Your task to perform on an android device: turn off location history Image 0: 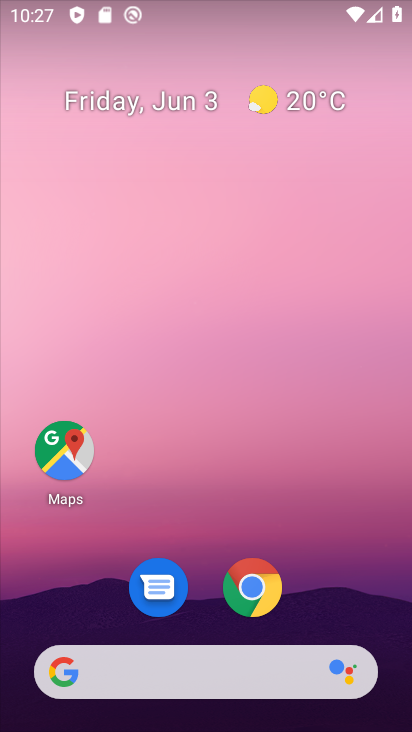
Step 0: drag from (344, 539) to (214, 47)
Your task to perform on an android device: turn off location history Image 1: 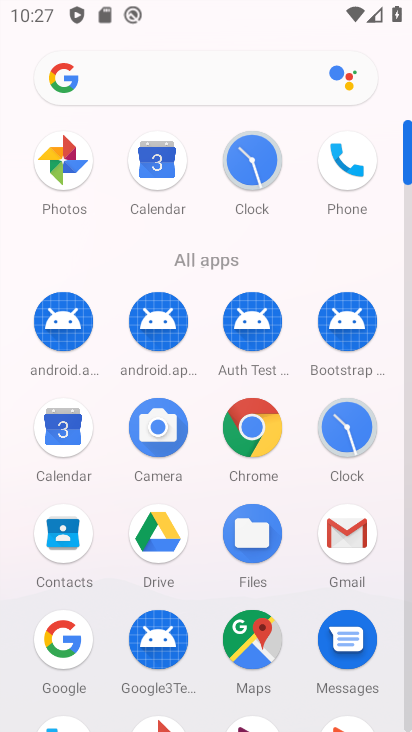
Step 1: drag from (221, 575) to (212, 102)
Your task to perform on an android device: turn off location history Image 2: 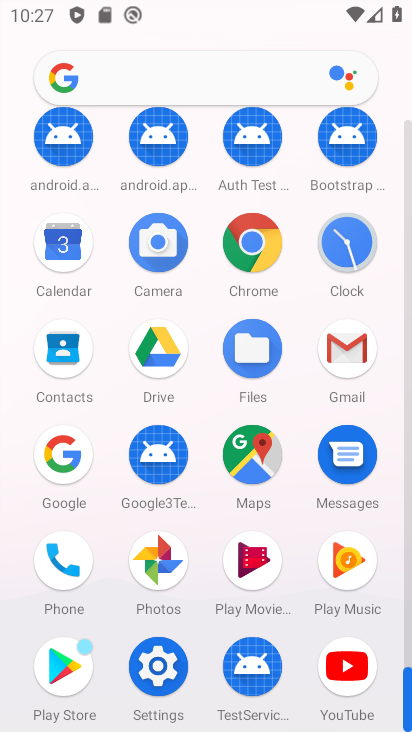
Step 2: click (166, 669)
Your task to perform on an android device: turn off location history Image 3: 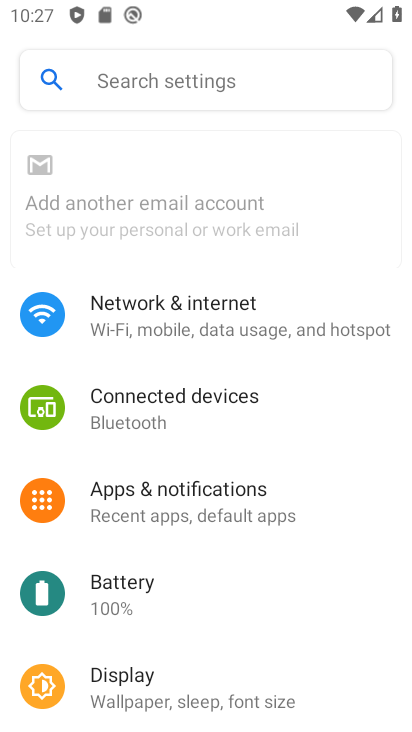
Step 3: drag from (274, 591) to (295, 170)
Your task to perform on an android device: turn off location history Image 4: 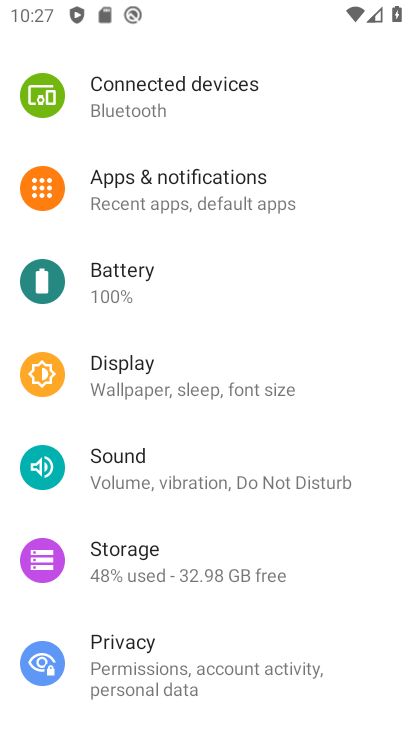
Step 4: drag from (257, 476) to (257, 182)
Your task to perform on an android device: turn off location history Image 5: 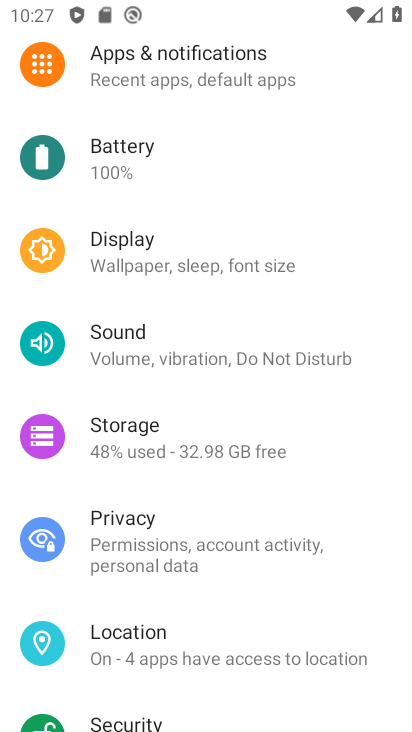
Step 5: click (241, 647)
Your task to perform on an android device: turn off location history Image 6: 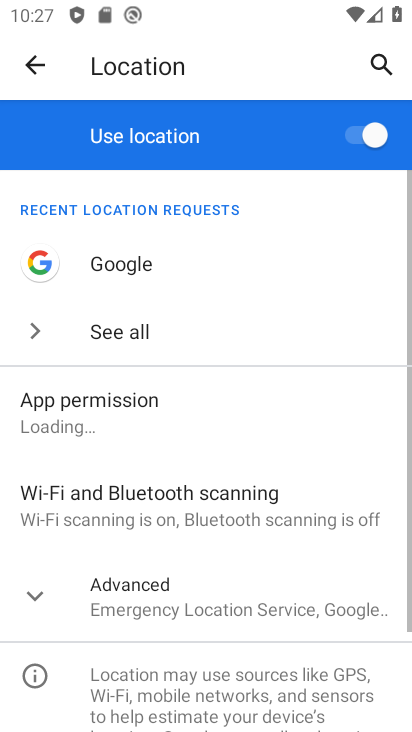
Step 6: drag from (226, 616) to (265, 197)
Your task to perform on an android device: turn off location history Image 7: 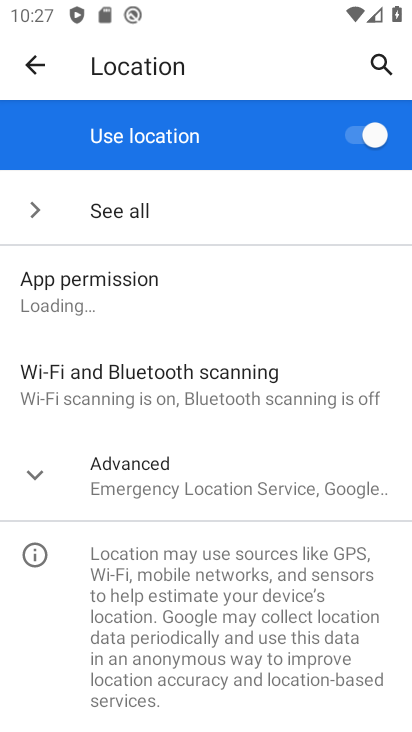
Step 7: click (215, 471)
Your task to perform on an android device: turn off location history Image 8: 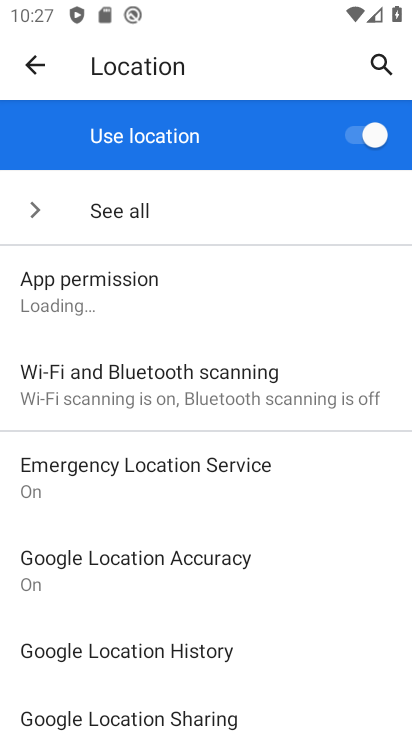
Step 8: click (209, 646)
Your task to perform on an android device: turn off location history Image 9: 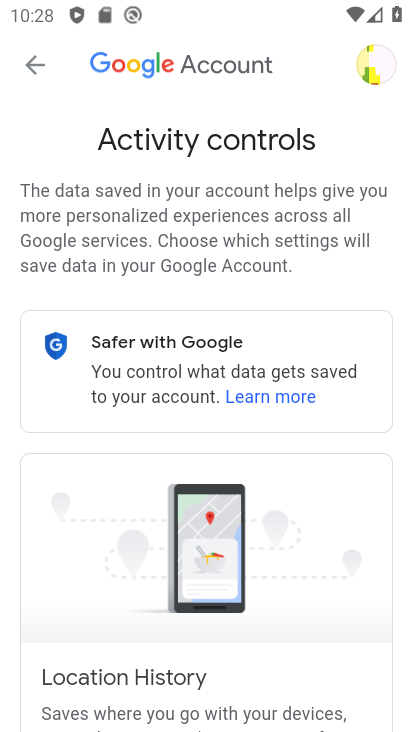
Step 9: drag from (185, 622) to (245, 79)
Your task to perform on an android device: turn off location history Image 10: 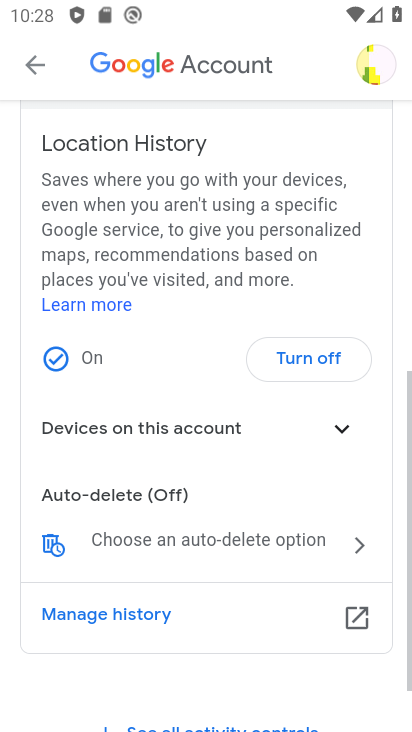
Step 10: drag from (213, 433) to (241, 185)
Your task to perform on an android device: turn off location history Image 11: 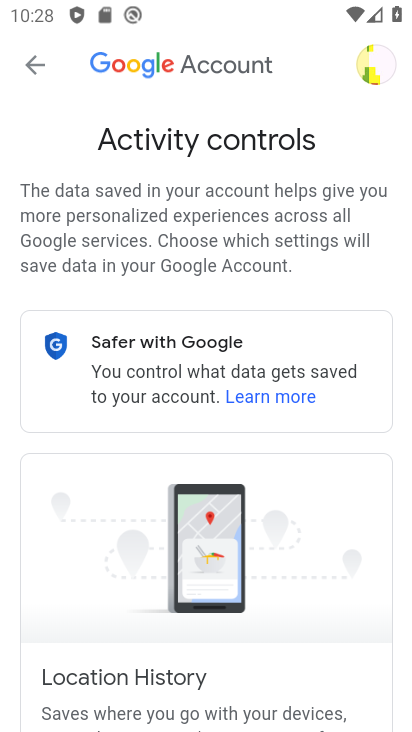
Step 11: drag from (222, 625) to (256, 112)
Your task to perform on an android device: turn off location history Image 12: 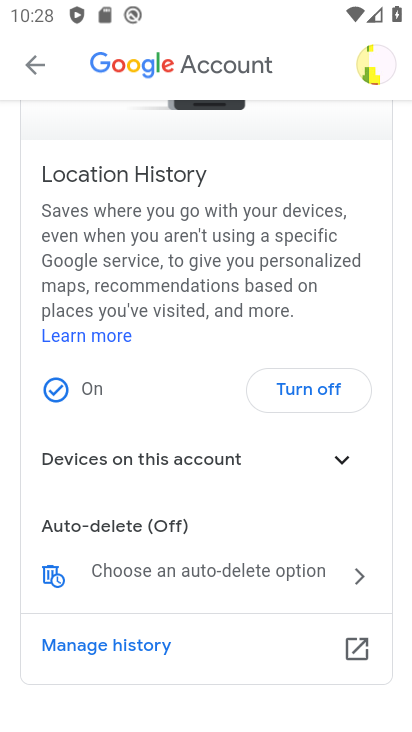
Step 12: drag from (233, 546) to (249, 302)
Your task to perform on an android device: turn off location history Image 13: 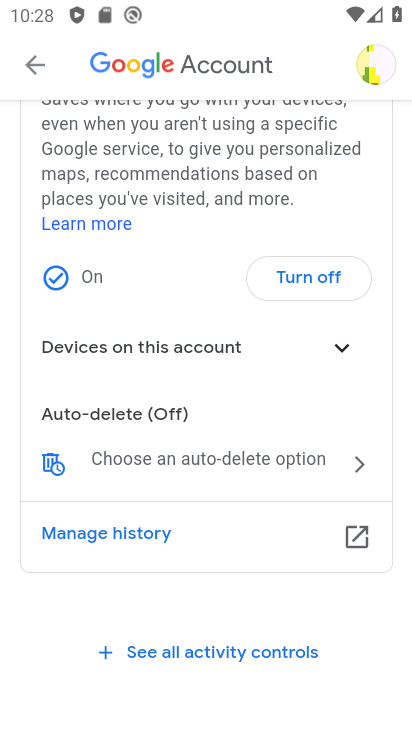
Step 13: click (322, 273)
Your task to perform on an android device: turn off location history Image 14: 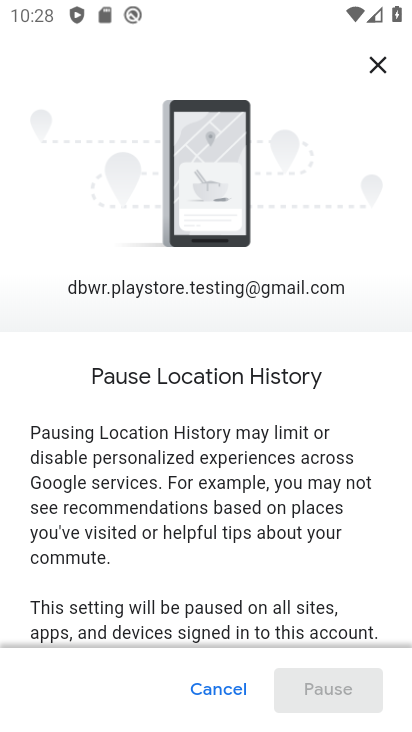
Step 14: drag from (251, 542) to (186, 43)
Your task to perform on an android device: turn off location history Image 15: 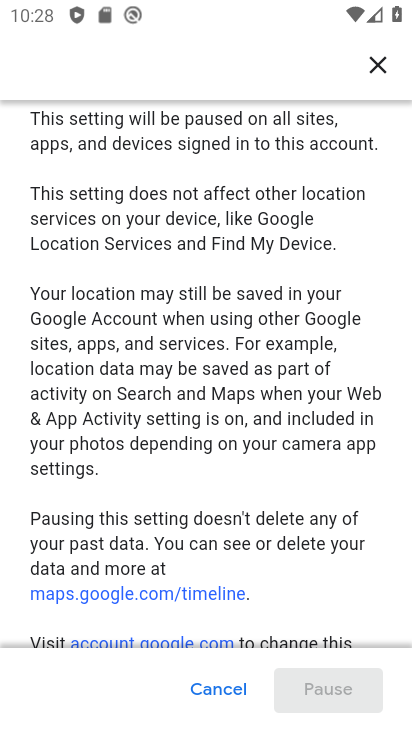
Step 15: drag from (148, 595) to (220, 136)
Your task to perform on an android device: turn off location history Image 16: 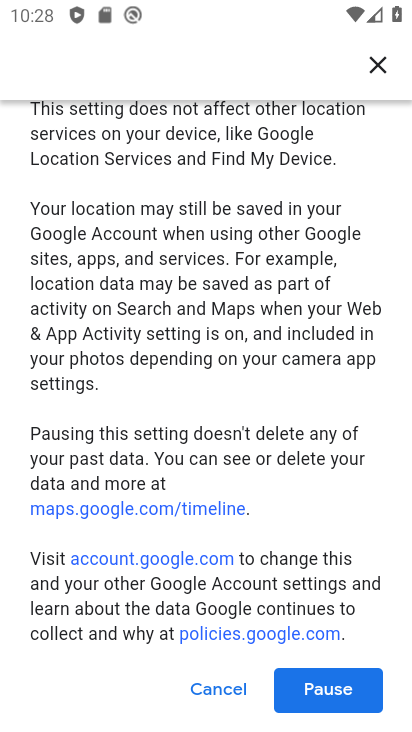
Step 16: click (336, 690)
Your task to perform on an android device: turn off location history Image 17: 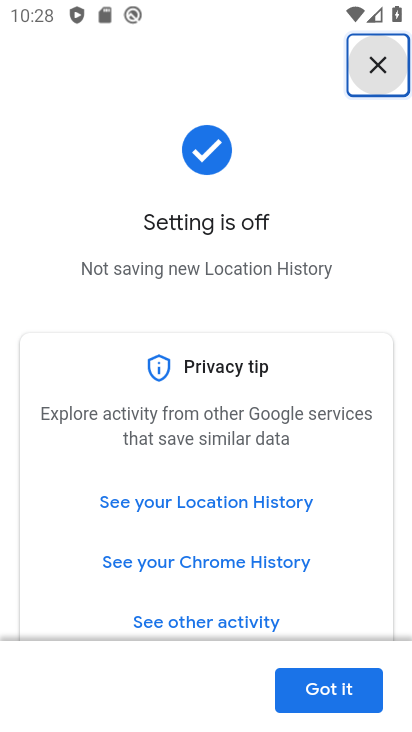
Step 17: drag from (252, 580) to (302, 89)
Your task to perform on an android device: turn off location history Image 18: 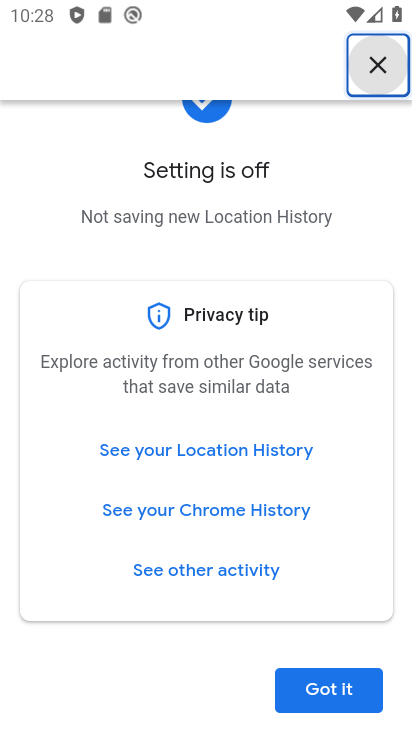
Step 18: click (360, 686)
Your task to perform on an android device: turn off location history Image 19: 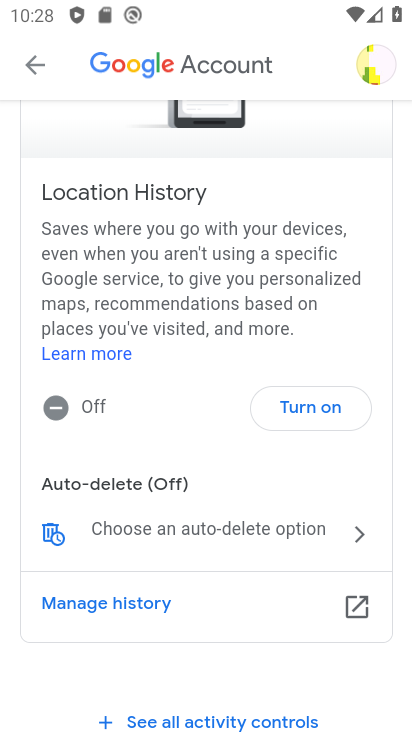
Step 19: task complete